Your task to perform on an android device: change keyboard looks Image 0: 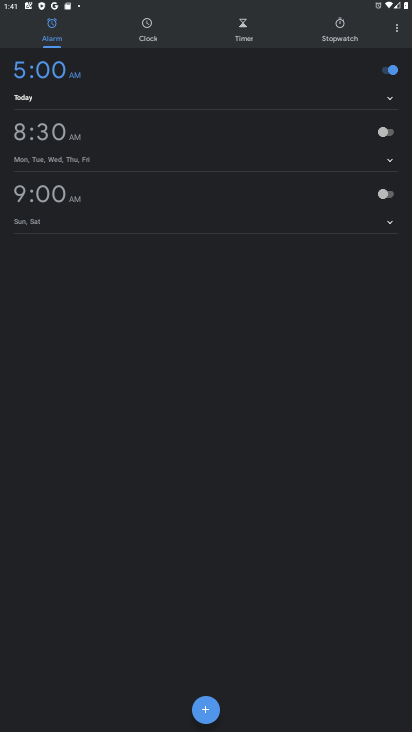
Step 0: press home button
Your task to perform on an android device: change keyboard looks Image 1: 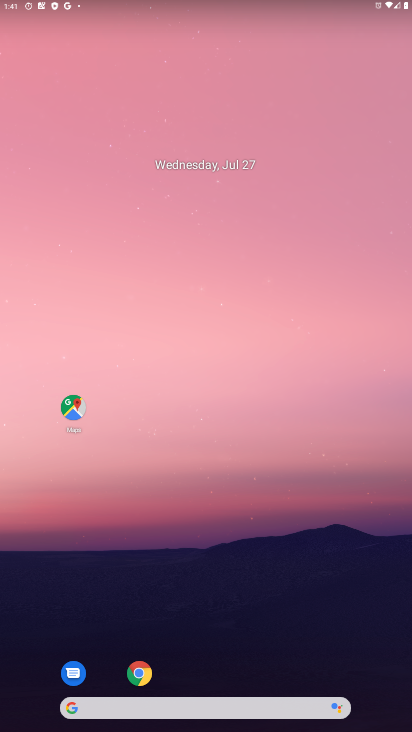
Step 1: drag from (205, 674) to (220, 55)
Your task to perform on an android device: change keyboard looks Image 2: 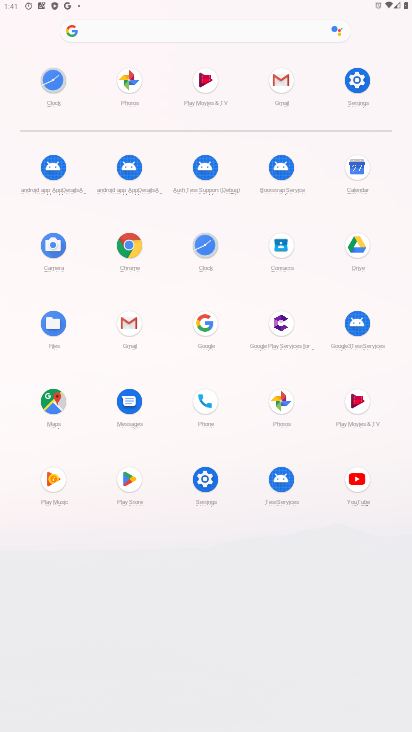
Step 2: click (354, 79)
Your task to perform on an android device: change keyboard looks Image 3: 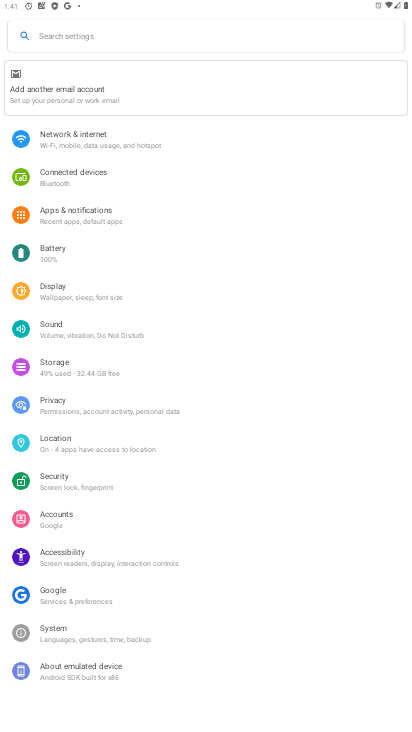
Step 3: click (75, 639)
Your task to perform on an android device: change keyboard looks Image 4: 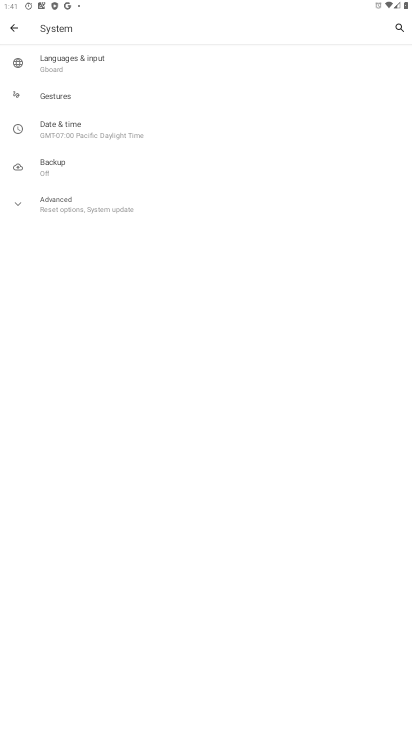
Step 4: click (60, 64)
Your task to perform on an android device: change keyboard looks Image 5: 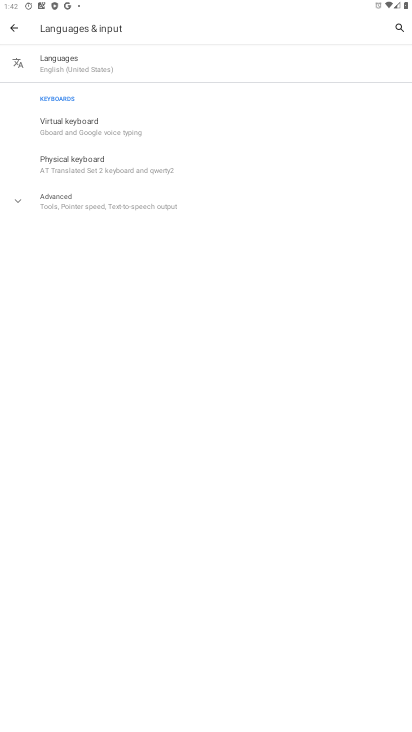
Step 5: click (65, 127)
Your task to perform on an android device: change keyboard looks Image 6: 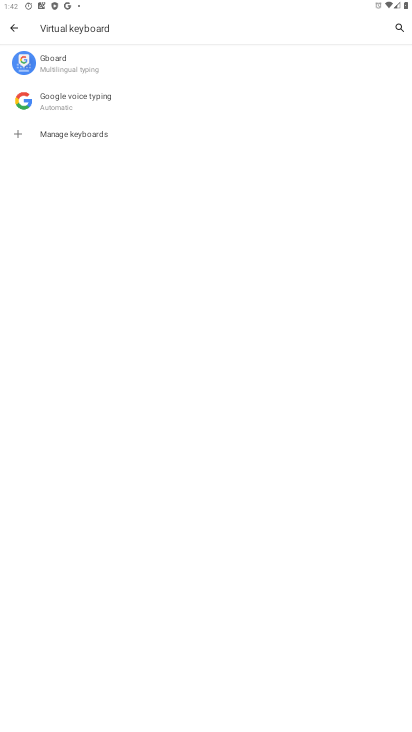
Step 6: click (54, 62)
Your task to perform on an android device: change keyboard looks Image 7: 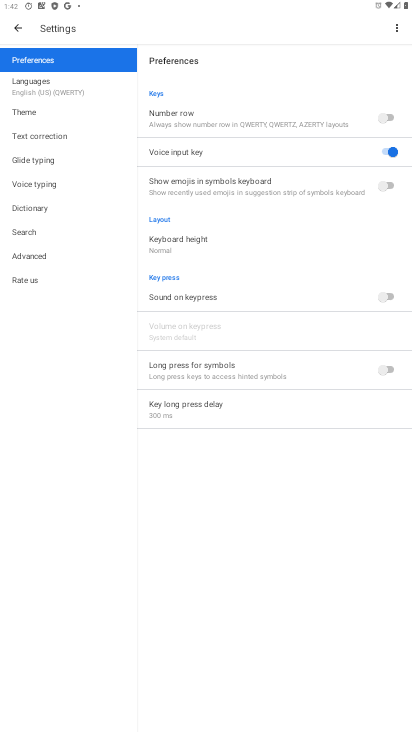
Step 7: click (42, 111)
Your task to perform on an android device: change keyboard looks Image 8: 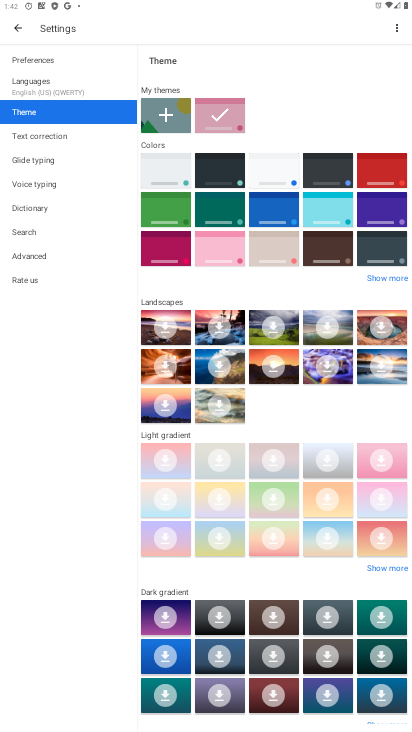
Step 8: click (351, 214)
Your task to perform on an android device: change keyboard looks Image 9: 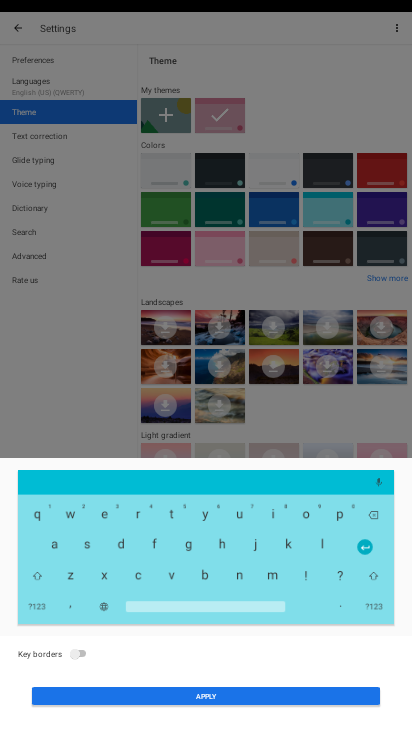
Step 9: click (66, 657)
Your task to perform on an android device: change keyboard looks Image 10: 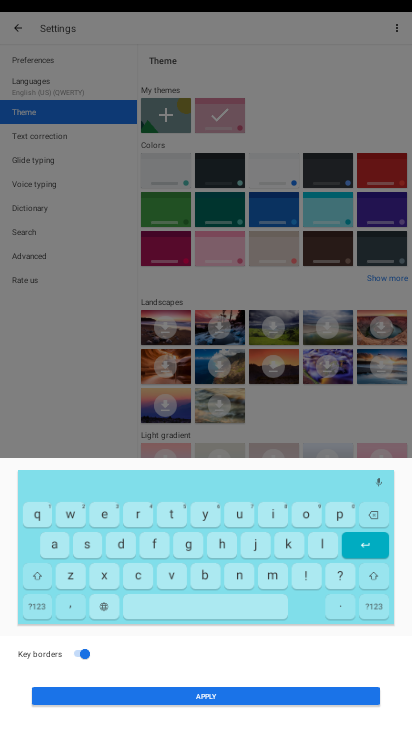
Step 10: click (193, 698)
Your task to perform on an android device: change keyboard looks Image 11: 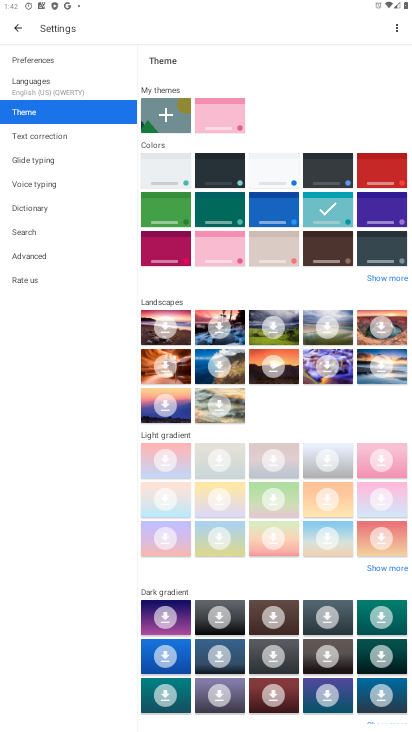
Step 11: task complete